Your task to perform on an android device: Open wifi settings Image 0: 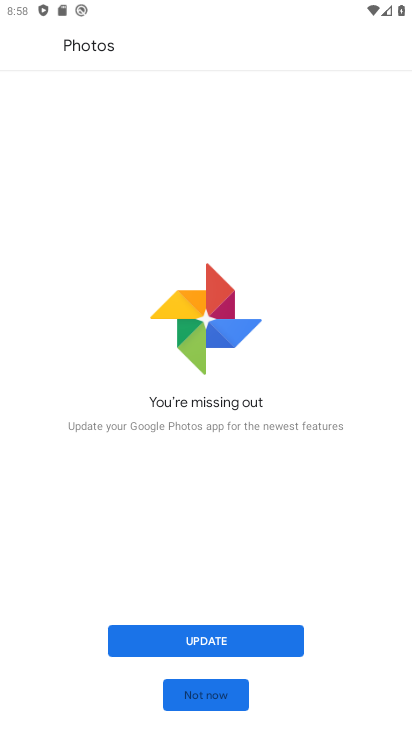
Step 0: press home button
Your task to perform on an android device: Open wifi settings Image 1: 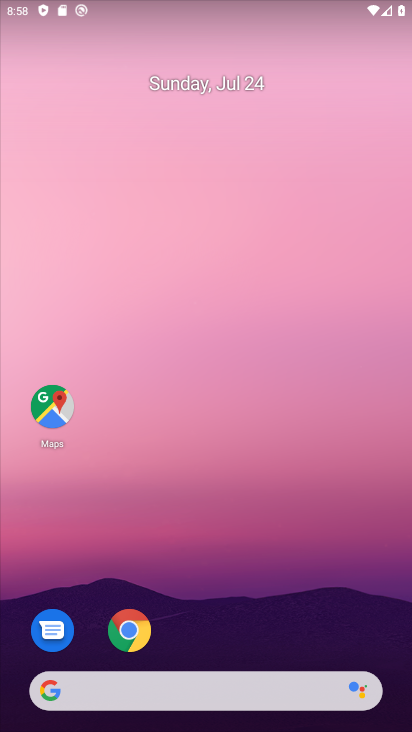
Step 1: drag from (216, 600) to (202, 73)
Your task to perform on an android device: Open wifi settings Image 2: 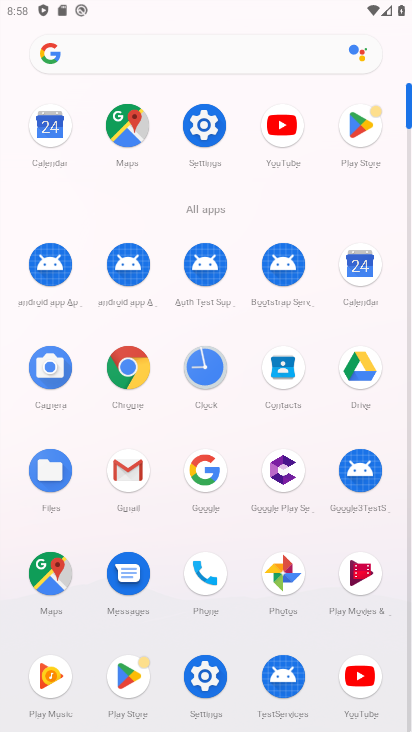
Step 2: click (209, 120)
Your task to perform on an android device: Open wifi settings Image 3: 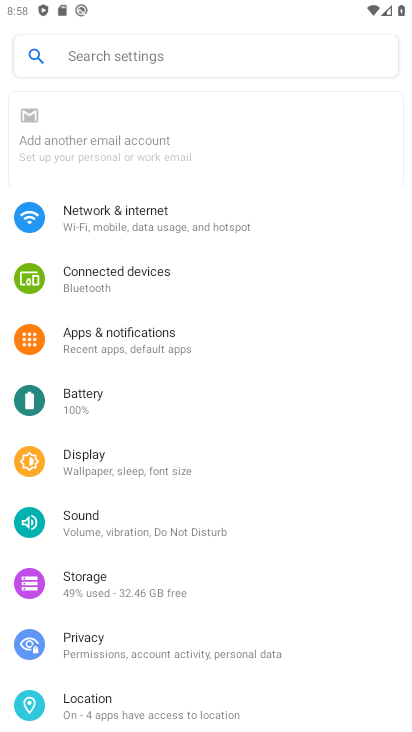
Step 3: click (122, 208)
Your task to perform on an android device: Open wifi settings Image 4: 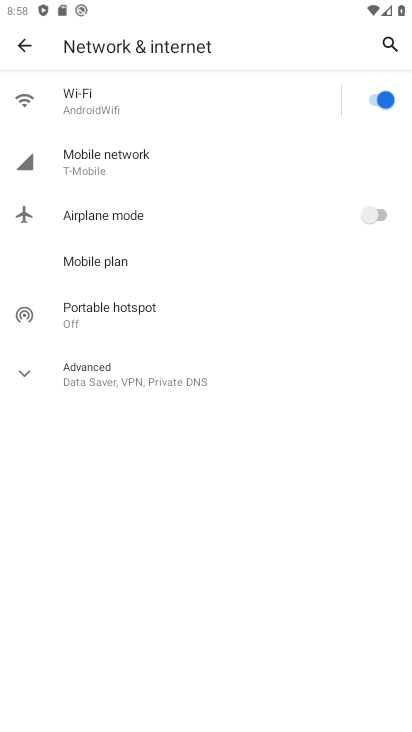
Step 4: task complete